Your task to perform on an android device: Open Google Image 0: 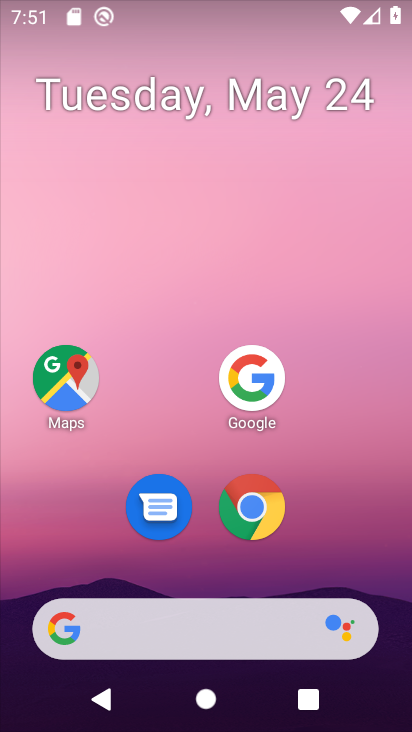
Step 0: press home button
Your task to perform on an android device: Open Google Image 1: 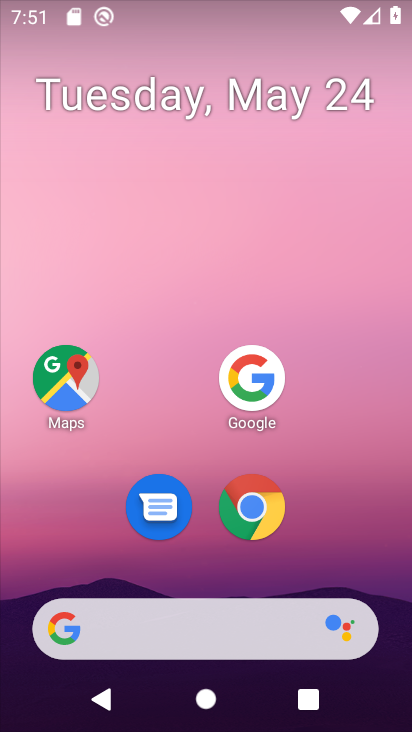
Step 1: click (261, 393)
Your task to perform on an android device: Open Google Image 2: 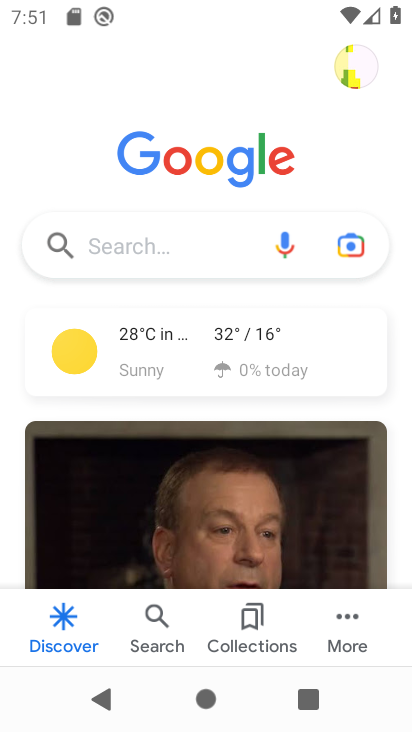
Step 2: task complete